Your task to perform on an android device: Go to sound settings Image 0: 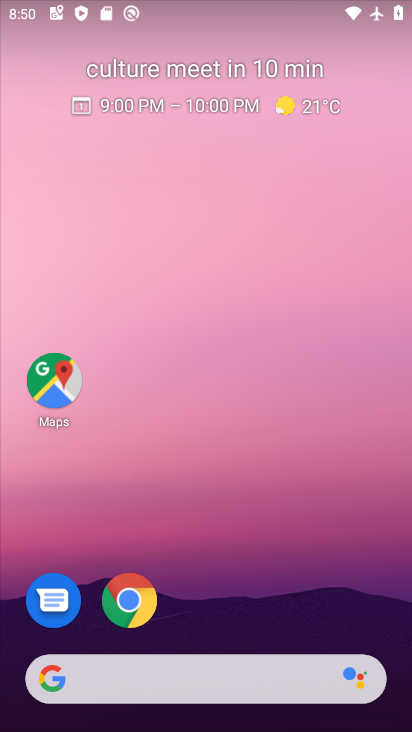
Step 0: drag from (380, 618) to (328, 144)
Your task to perform on an android device: Go to sound settings Image 1: 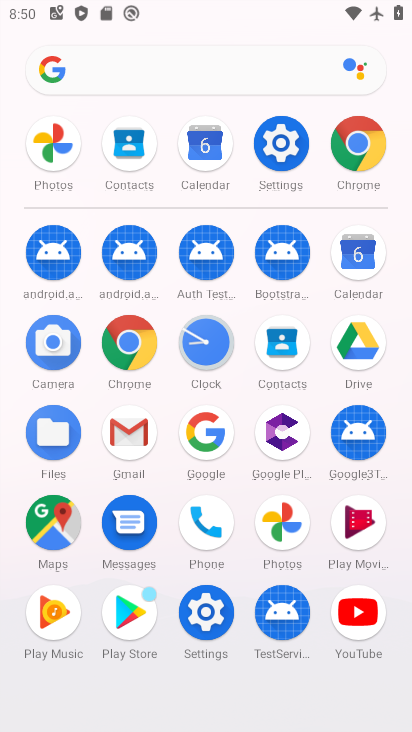
Step 1: click (208, 611)
Your task to perform on an android device: Go to sound settings Image 2: 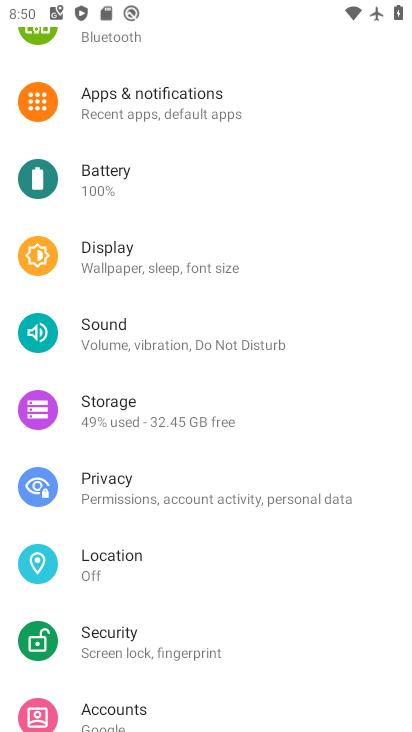
Step 2: click (106, 336)
Your task to perform on an android device: Go to sound settings Image 3: 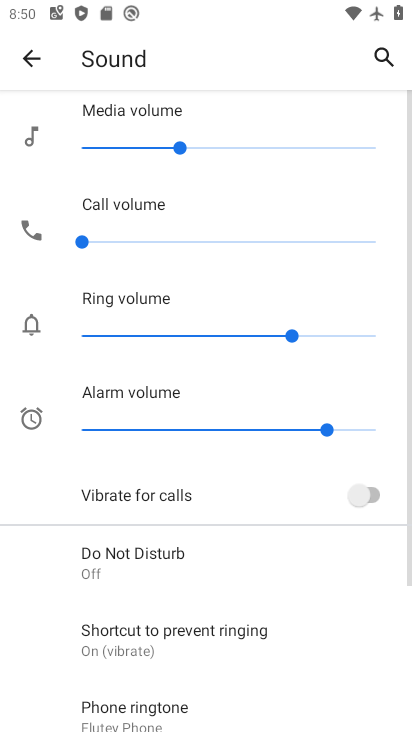
Step 3: drag from (314, 607) to (303, 237)
Your task to perform on an android device: Go to sound settings Image 4: 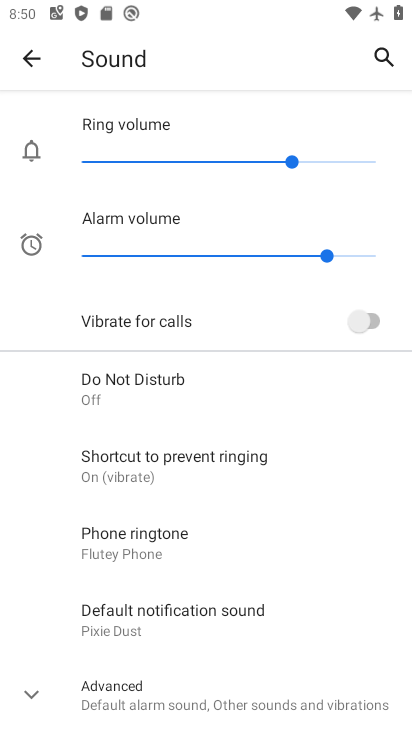
Step 4: click (33, 686)
Your task to perform on an android device: Go to sound settings Image 5: 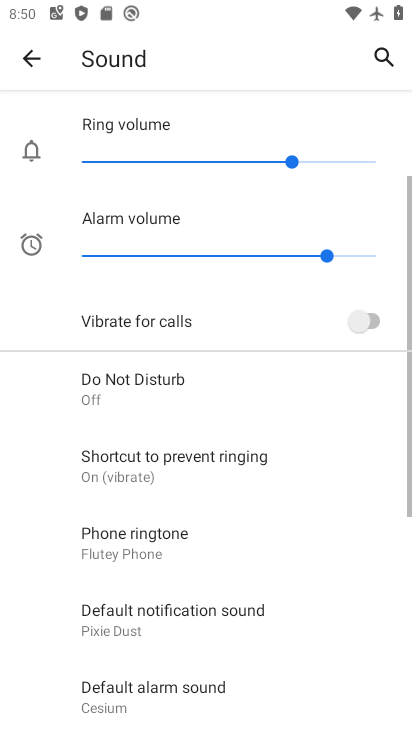
Step 5: task complete